Your task to perform on an android device: Open sound settings Image 0: 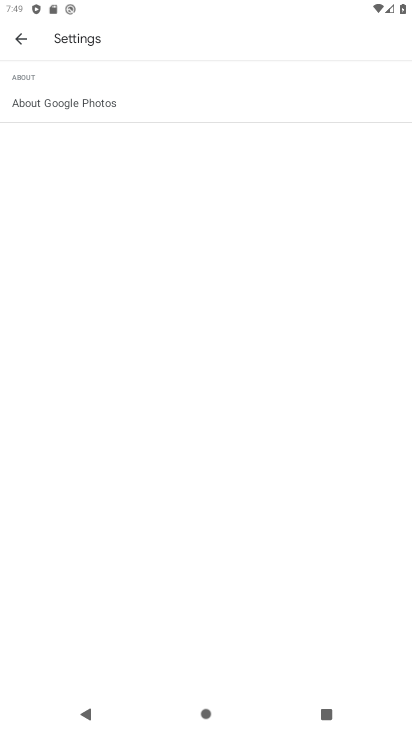
Step 0: press home button
Your task to perform on an android device: Open sound settings Image 1: 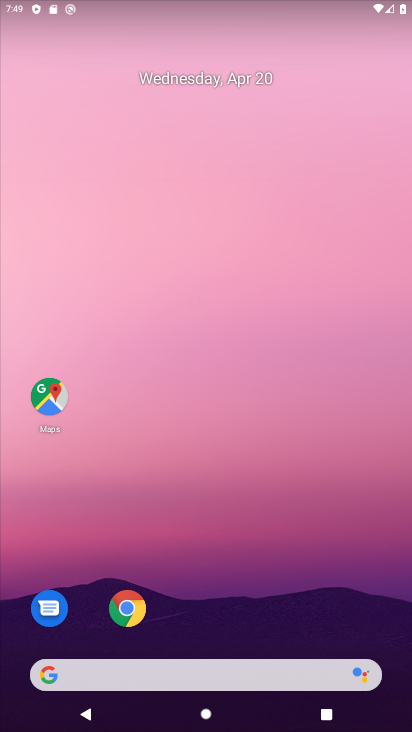
Step 1: drag from (205, 618) to (212, 170)
Your task to perform on an android device: Open sound settings Image 2: 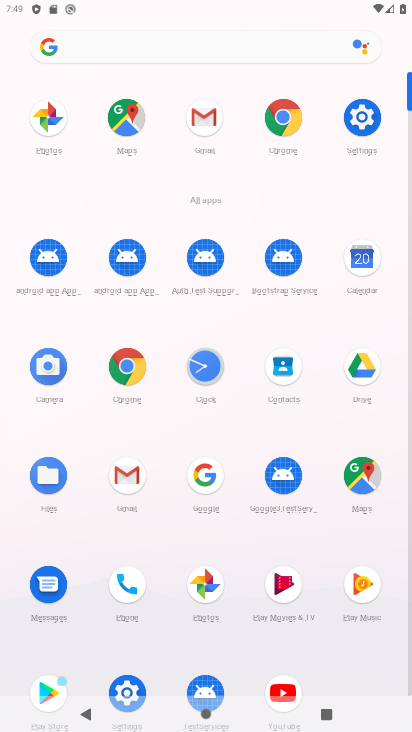
Step 2: click (360, 119)
Your task to perform on an android device: Open sound settings Image 3: 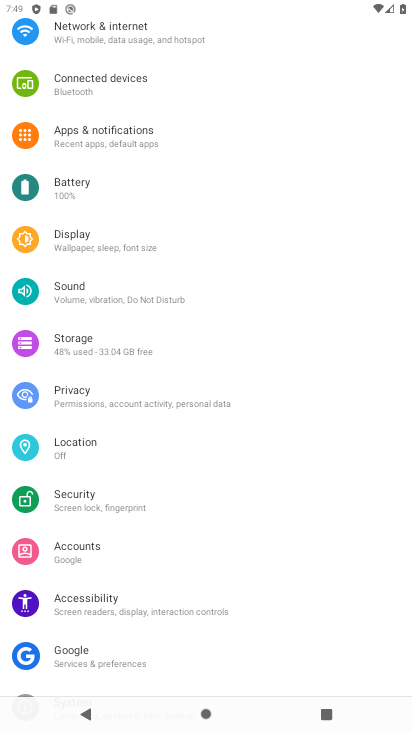
Step 3: click (88, 297)
Your task to perform on an android device: Open sound settings Image 4: 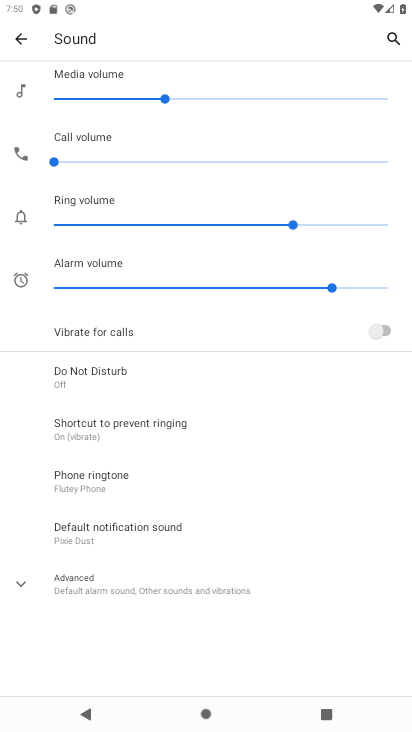
Step 4: task complete